Your task to perform on an android device: install app "Fetch Rewards" Image 0: 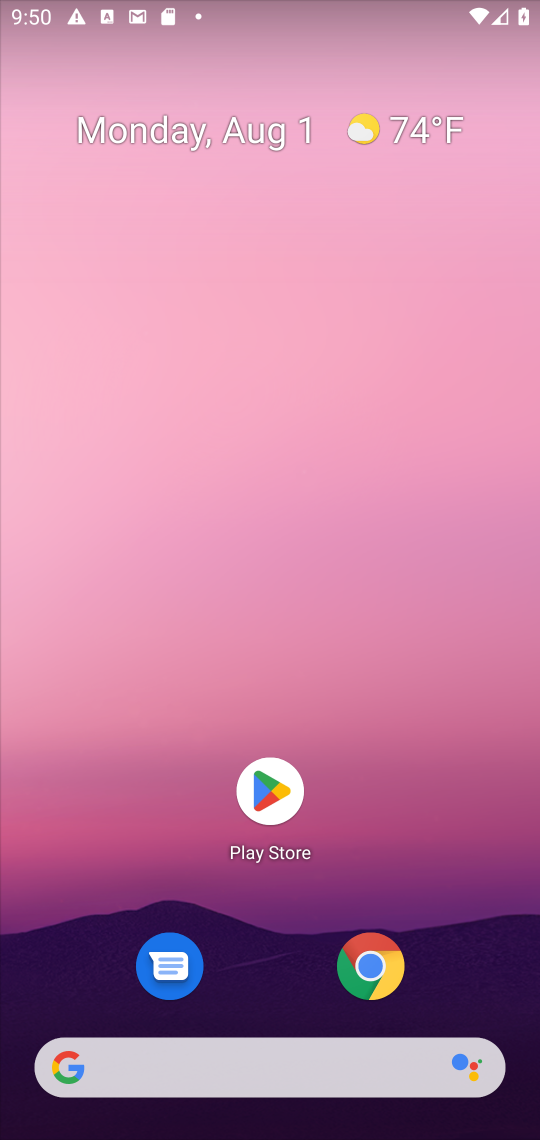
Step 0: click (272, 798)
Your task to perform on an android device: install app "Fetch Rewards" Image 1: 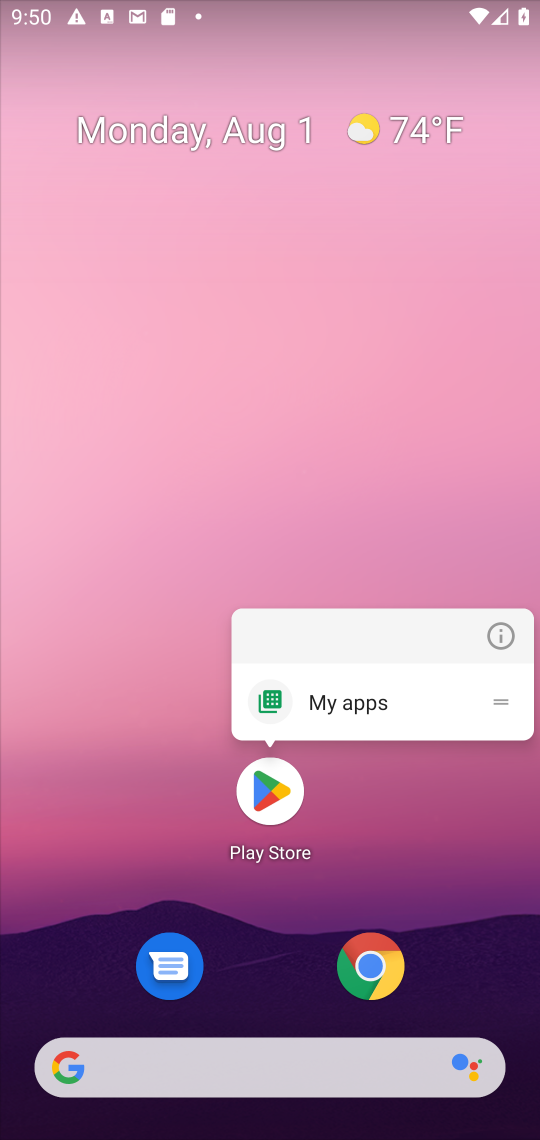
Step 1: click (272, 807)
Your task to perform on an android device: install app "Fetch Rewards" Image 2: 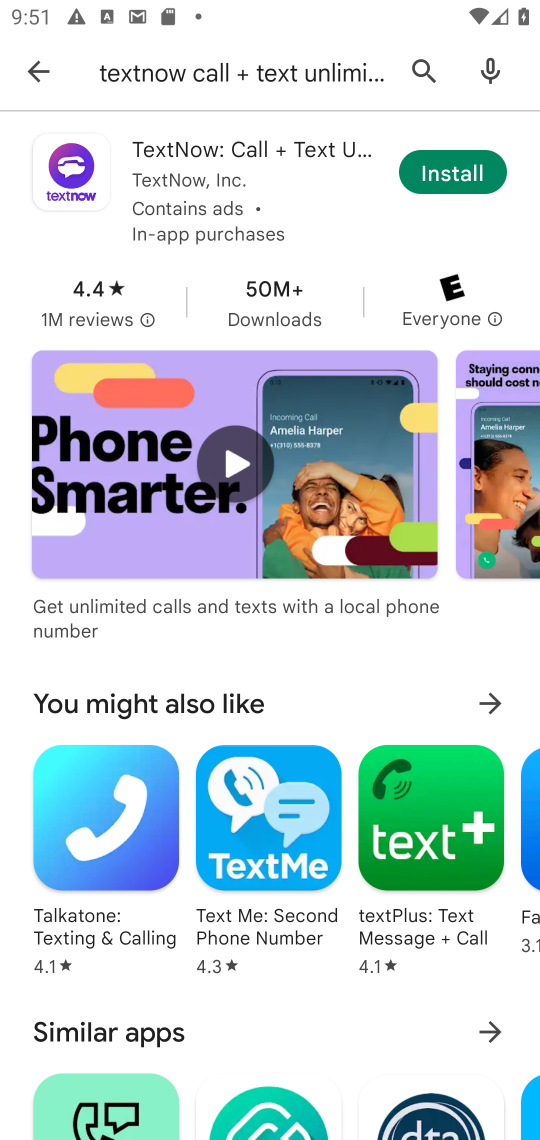
Step 2: click (420, 72)
Your task to perform on an android device: install app "Fetch Rewards" Image 3: 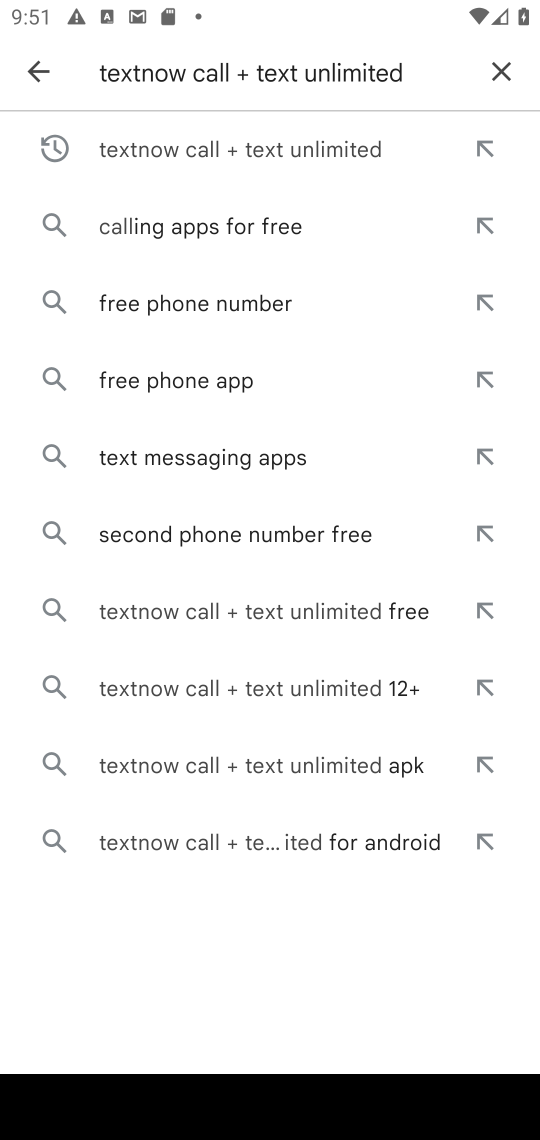
Step 3: click (510, 69)
Your task to perform on an android device: install app "Fetch Rewards" Image 4: 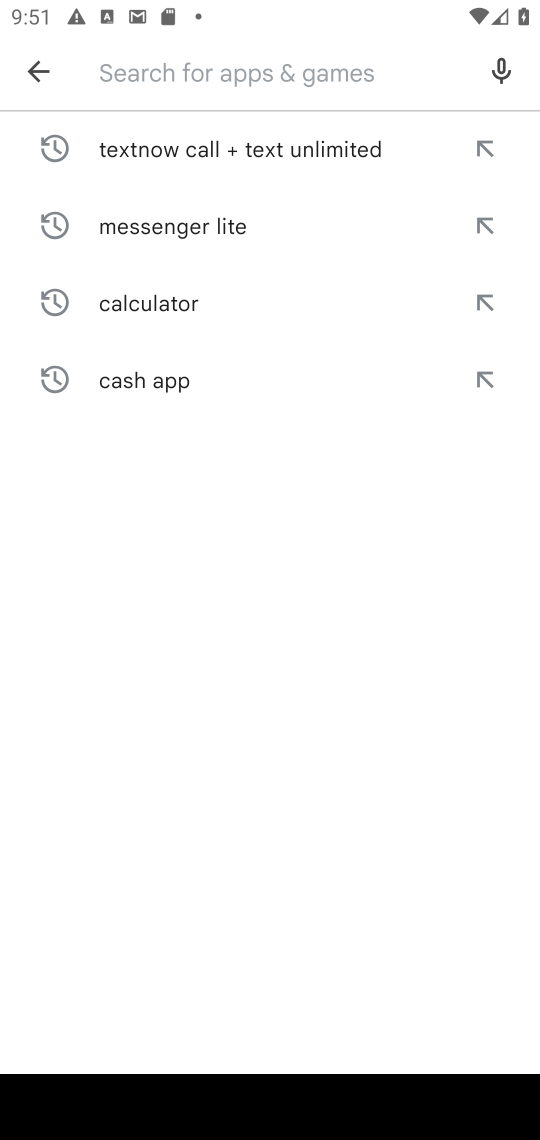
Step 4: type "Fetch Rewards"
Your task to perform on an android device: install app "Fetch Rewards" Image 5: 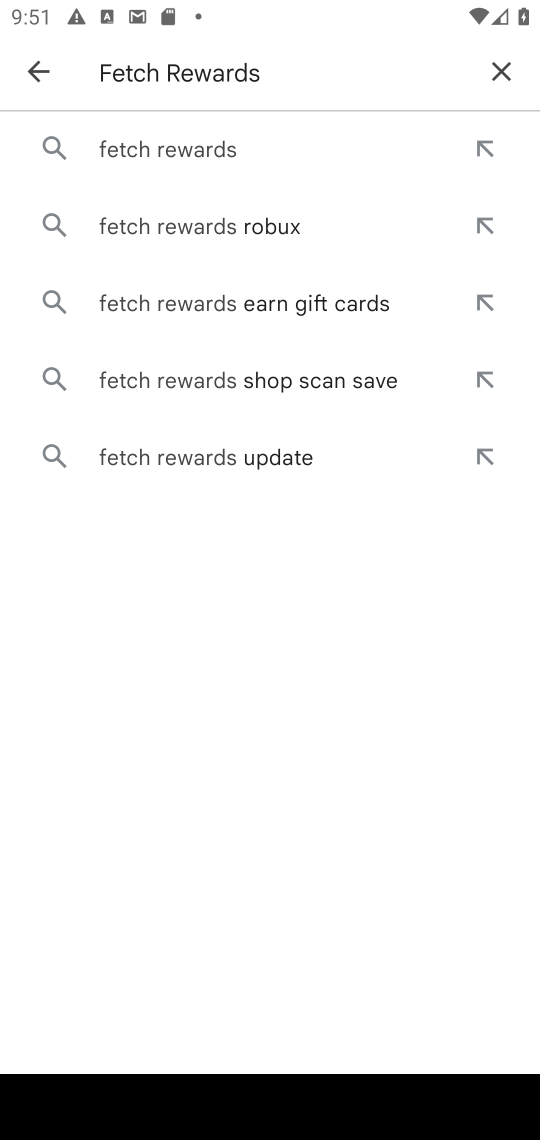
Step 5: click (191, 142)
Your task to perform on an android device: install app "Fetch Rewards" Image 6: 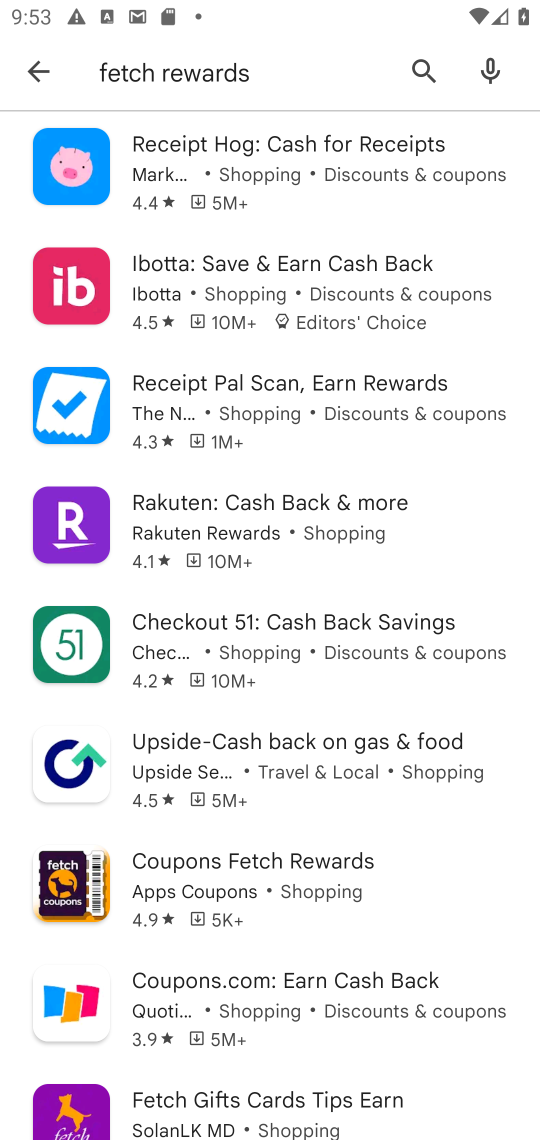
Step 6: task complete